Your task to perform on an android device: open a new tab in the chrome app Image 0: 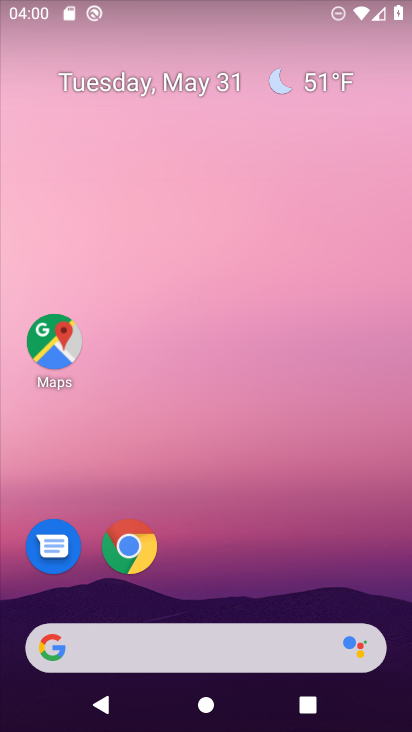
Step 0: click (140, 557)
Your task to perform on an android device: open a new tab in the chrome app Image 1: 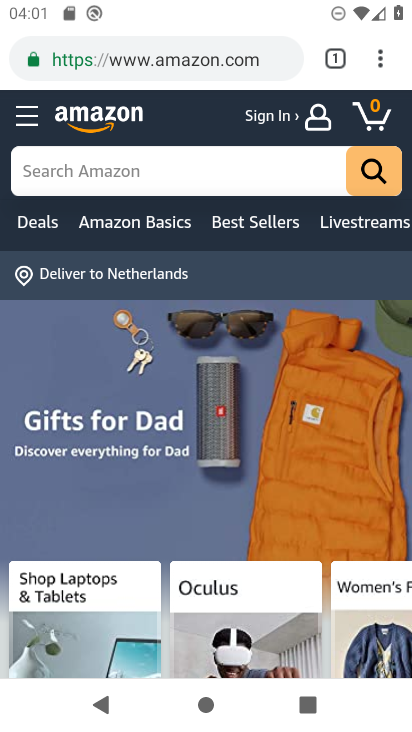
Step 1: click (332, 57)
Your task to perform on an android device: open a new tab in the chrome app Image 2: 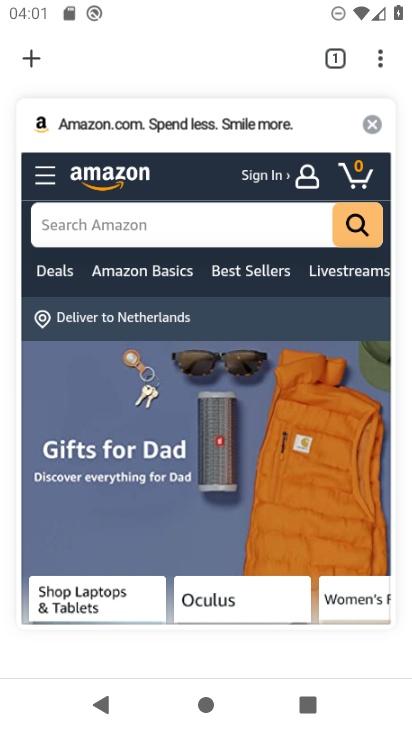
Step 2: click (28, 65)
Your task to perform on an android device: open a new tab in the chrome app Image 3: 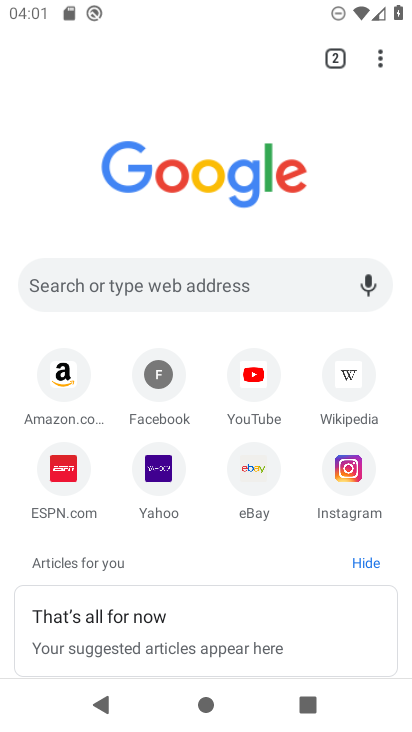
Step 3: task complete